Your task to perform on an android device: change the upload size in google photos Image 0: 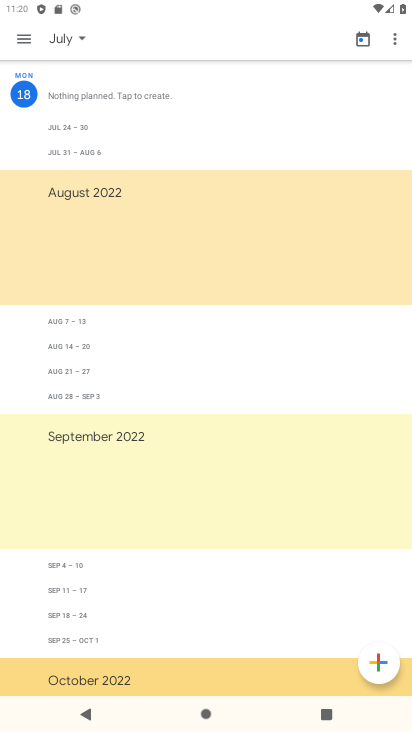
Step 0: press home button
Your task to perform on an android device: change the upload size in google photos Image 1: 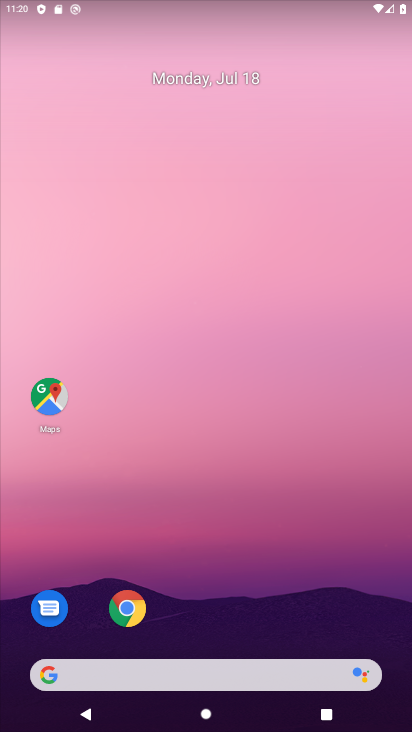
Step 1: drag from (228, 672) to (198, 8)
Your task to perform on an android device: change the upload size in google photos Image 2: 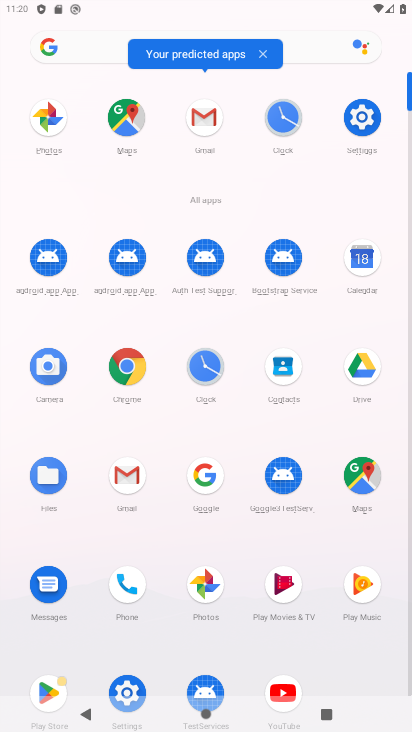
Step 2: click (77, 175)
Your task to perform on an android device: change the upload size in google photos Image 3: 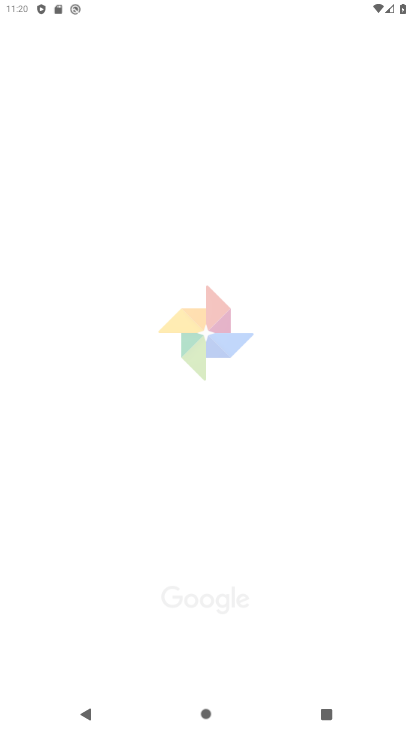
Step 3: click (48, 118)
Your task to perform on an android device: change the upload size in google photos Image 4: 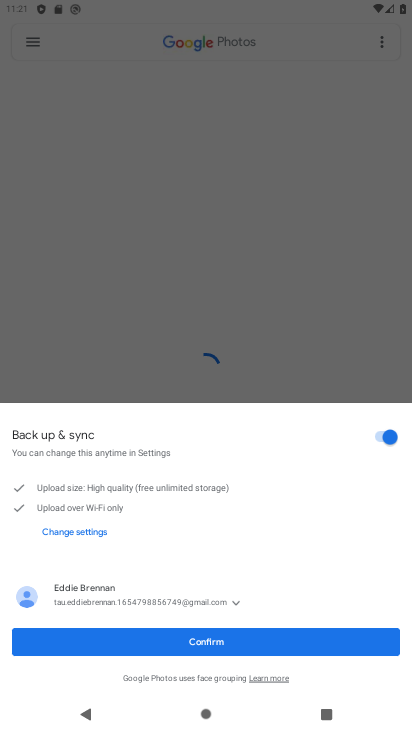
Step 4: click (216, 645)
Your task to perform on an android device: change the upload size in google photos Image 5: 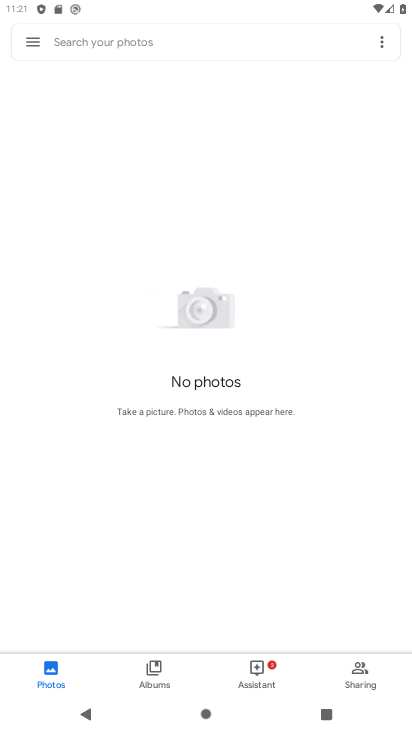
Step 5: click (31, 38)
Your task to perform on an android device: change the upload size in google photos Image 6: 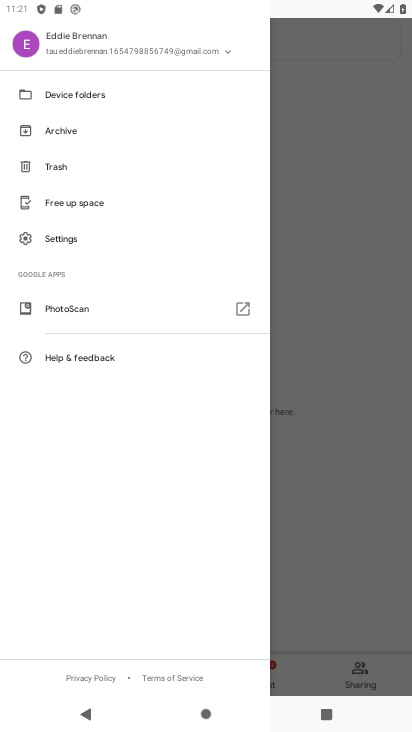
Step 6: click (67, 239)
Your task to perform on an android device: change the upload size in google photos Image 7: 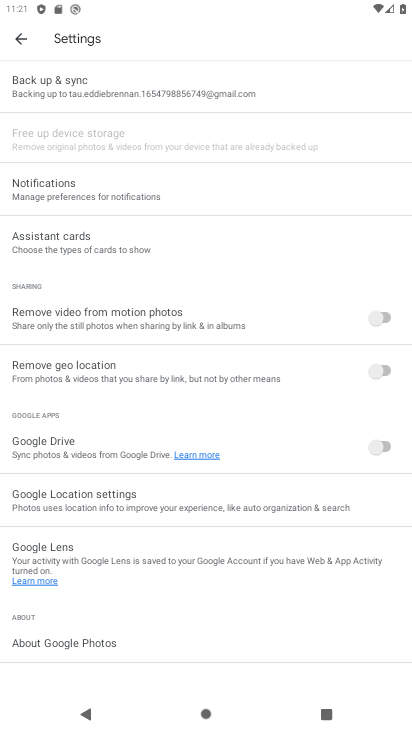
Step 7: click (119, 94)
Your task to perform on an android device: change the upload size in google photos Image 8: 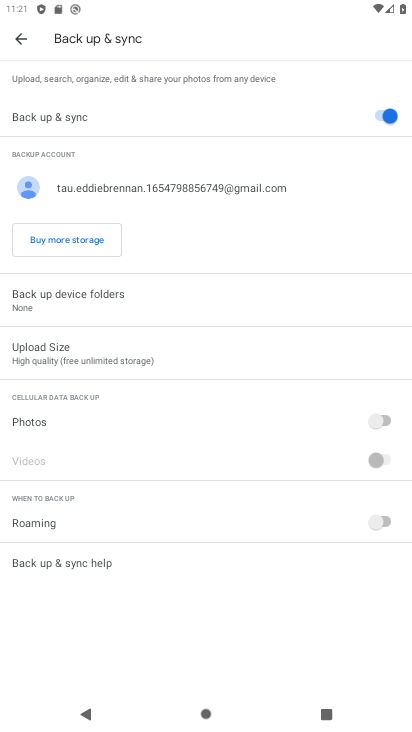
Step 8: click (53, 354)
Your task to perform on an android device: change the upload size in google photos Image 9: 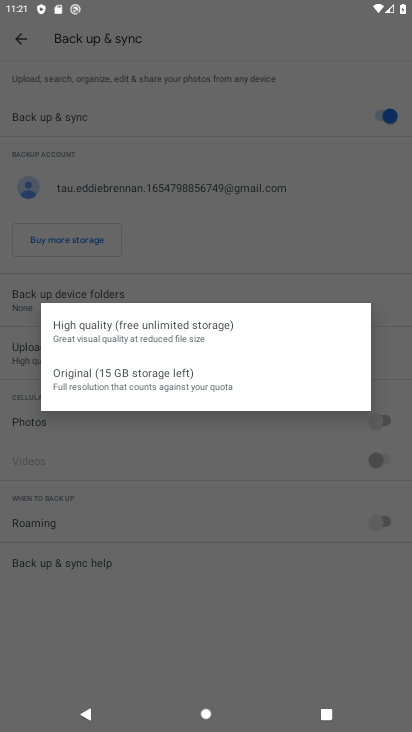
Step 9: click (68, 379)
Your task to perform on an android device: change the upload size in google photos Image 10: 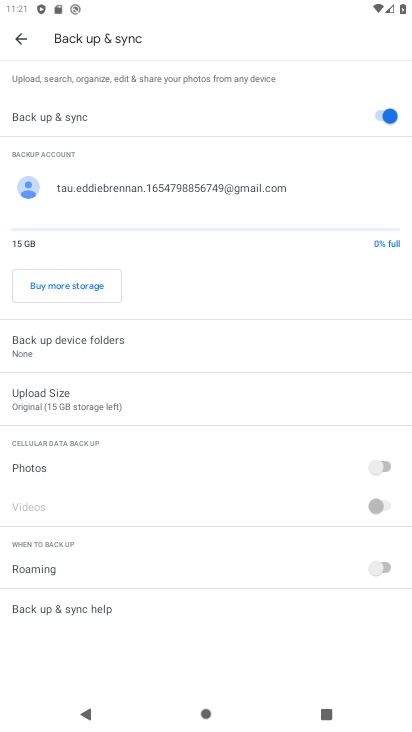
Step 10: task complete